Your task to perform on an android device: Do I have any events this weekend? Image 0: 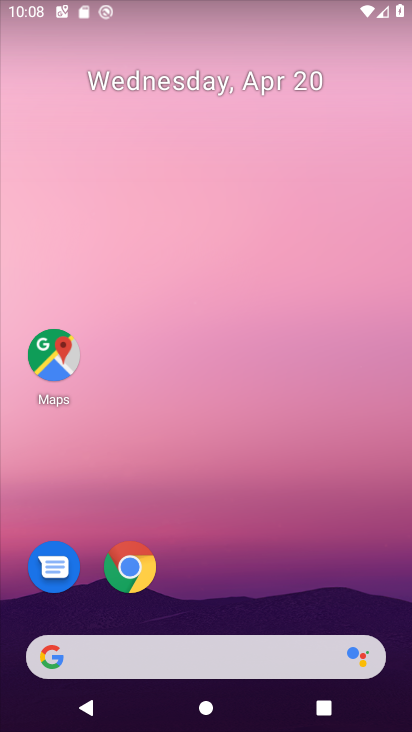
Step 0: drag from (355, 568) to (359, 239)
Your task to perform on an android device: Do I have any events this weekend? Image 1: 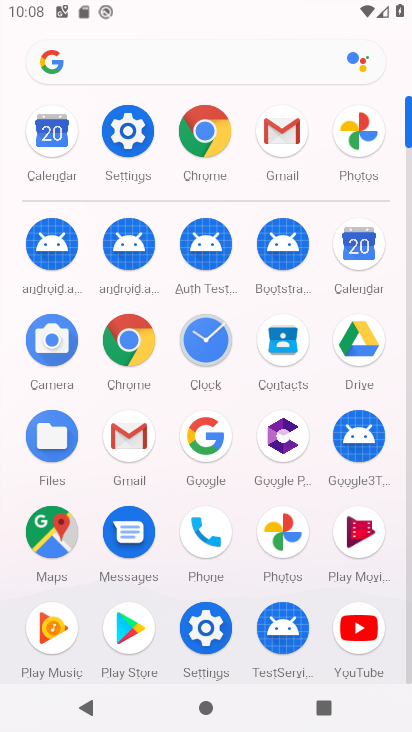
Step 1: click (360, 254)
Your task to perform on an android device: Do I have any events this weekend? Image 2: 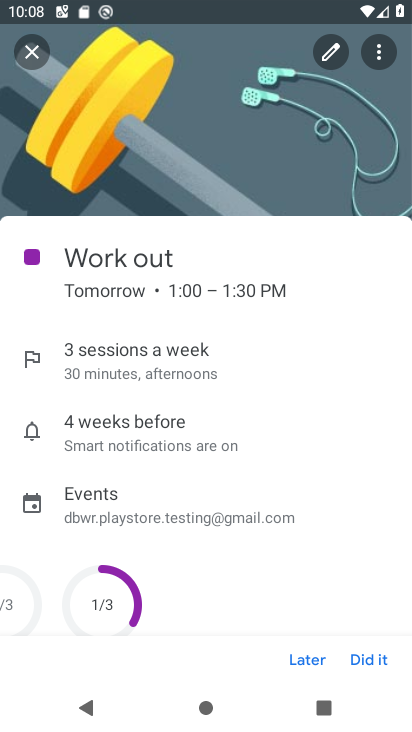
Step 2: click (35, 51)
Your task to perform on an android device: Do I have any events this weekend? Image 3: 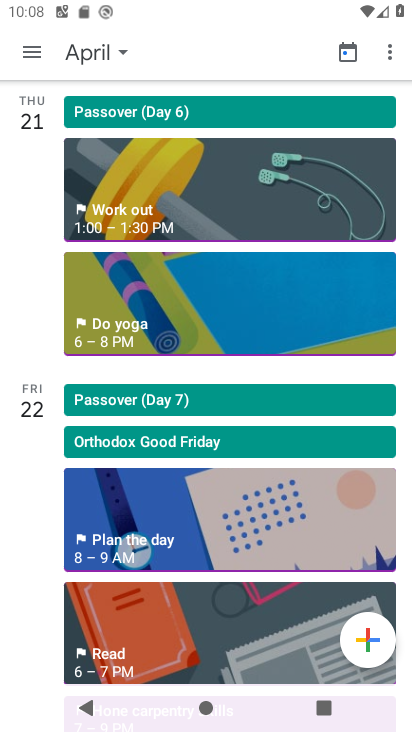
Step 3: drag from (144, 410) to (189, 211)
Your task to perform on an android device: Do I have any events this weekend? Image 4: 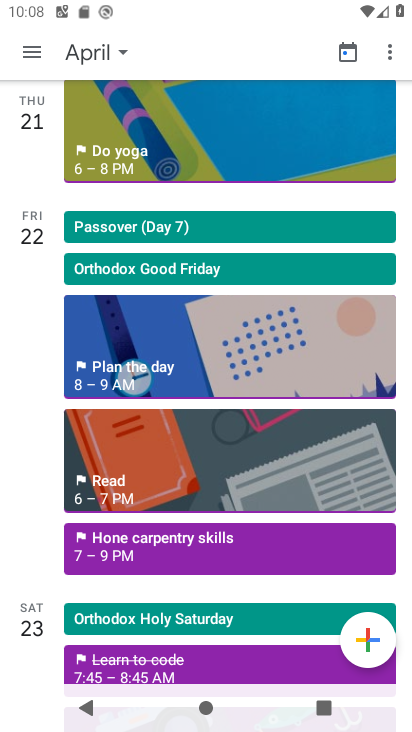
Step 4: drag from (262, 426) to (266, 169)
Your task to perform on an android device: Do I have any events this weekend? Image 5: 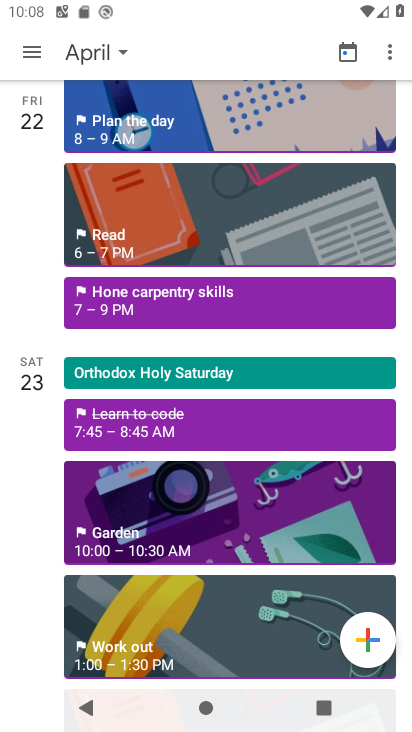
Step 5: drag from (228, 505) to (251, 235)
Your task to perform on an android device: Do I have any events this weekend? Image 6: 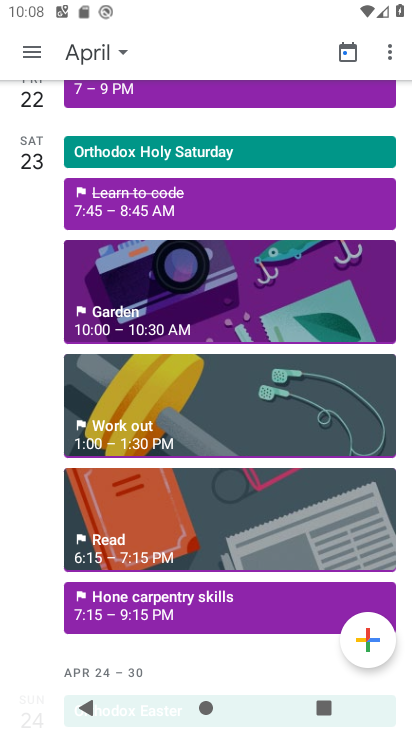
Step 6: click (214, 260)
Your task to perform on an android device: Do I have any events this weekend? Image 7: 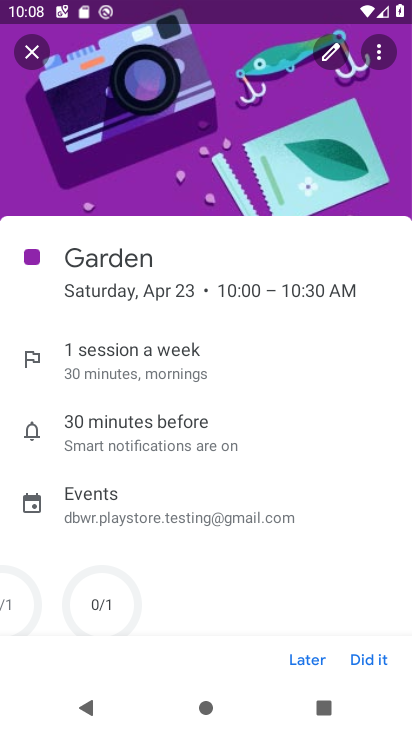
Step 7: task complete